Your task to perform on an android device: Is it going to rain tomorrow? Image 0: 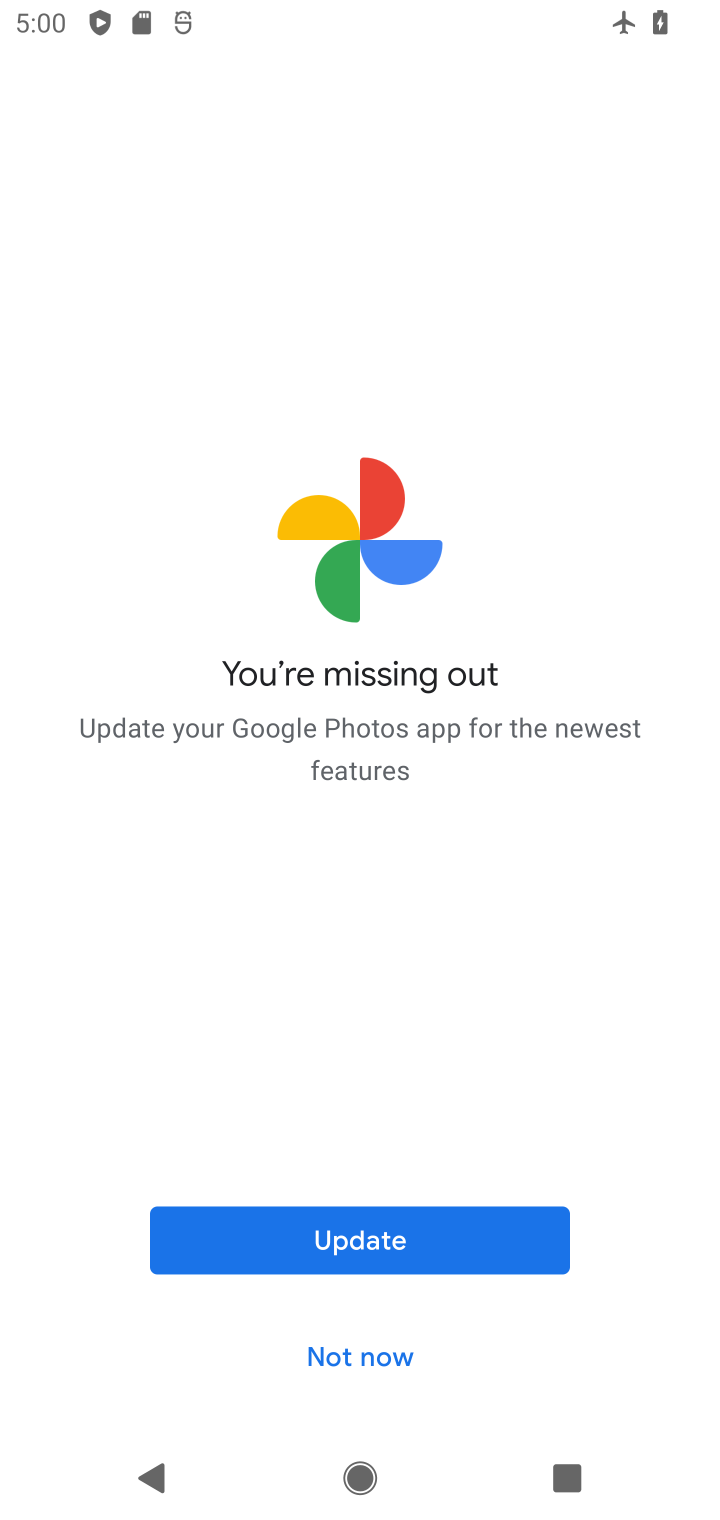
Step 0: press home button
Your task to perform on an android device: Is it going to rain tomorrow? Image 1: 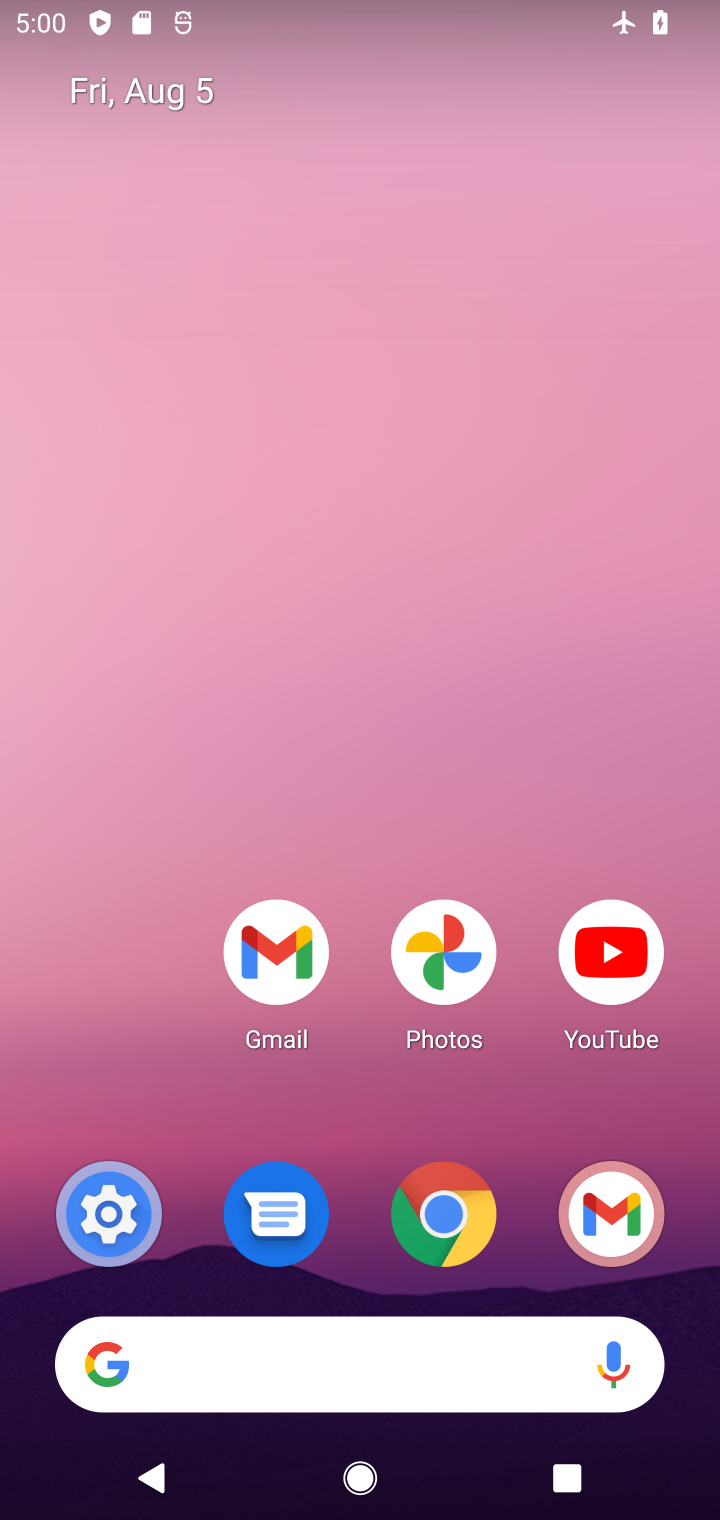
Step 1: click (450, 1358)
Your task to perform on an android device: Is it going to rain tomorrow? Image 2: 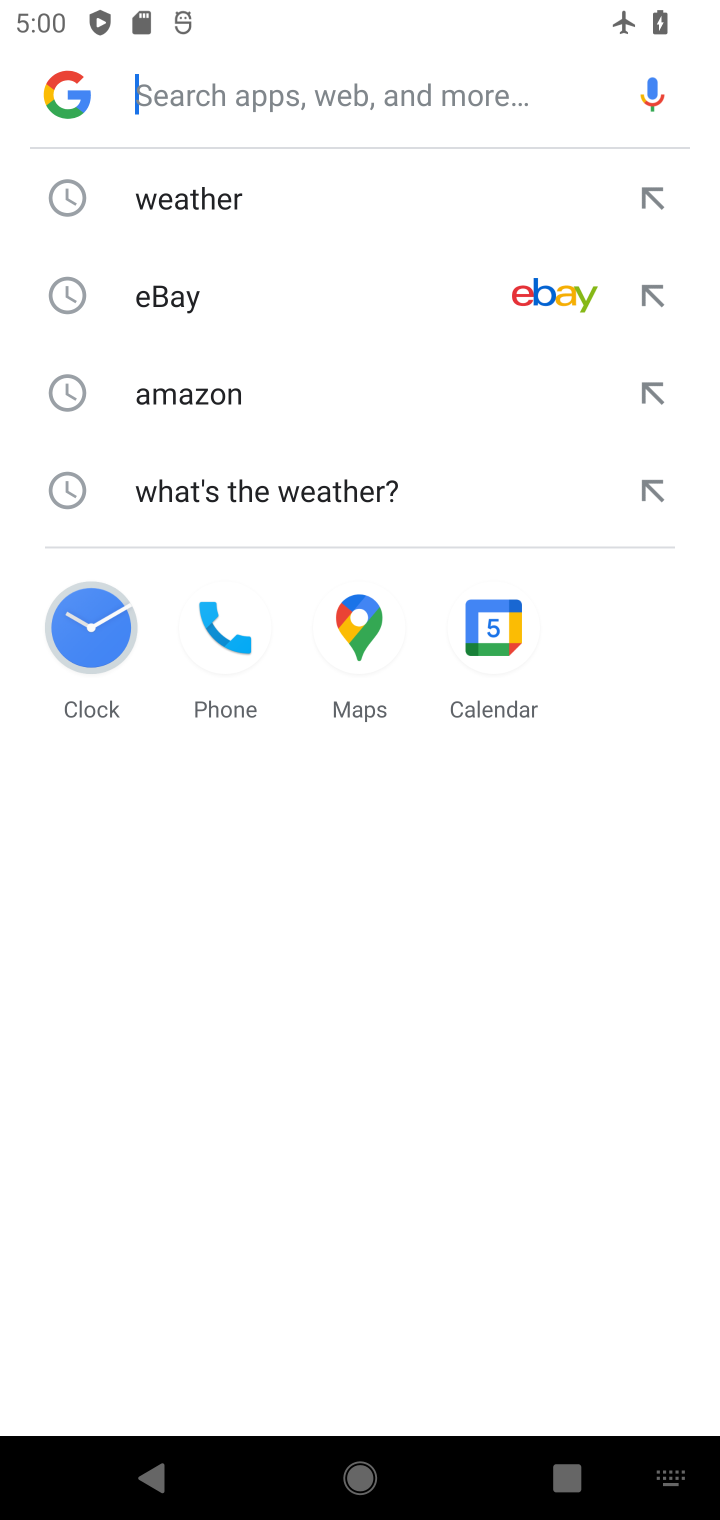
Step 2: click (185, 196)
Your task to perform on an android device: Is it going to rain tomorrow? Image 3: 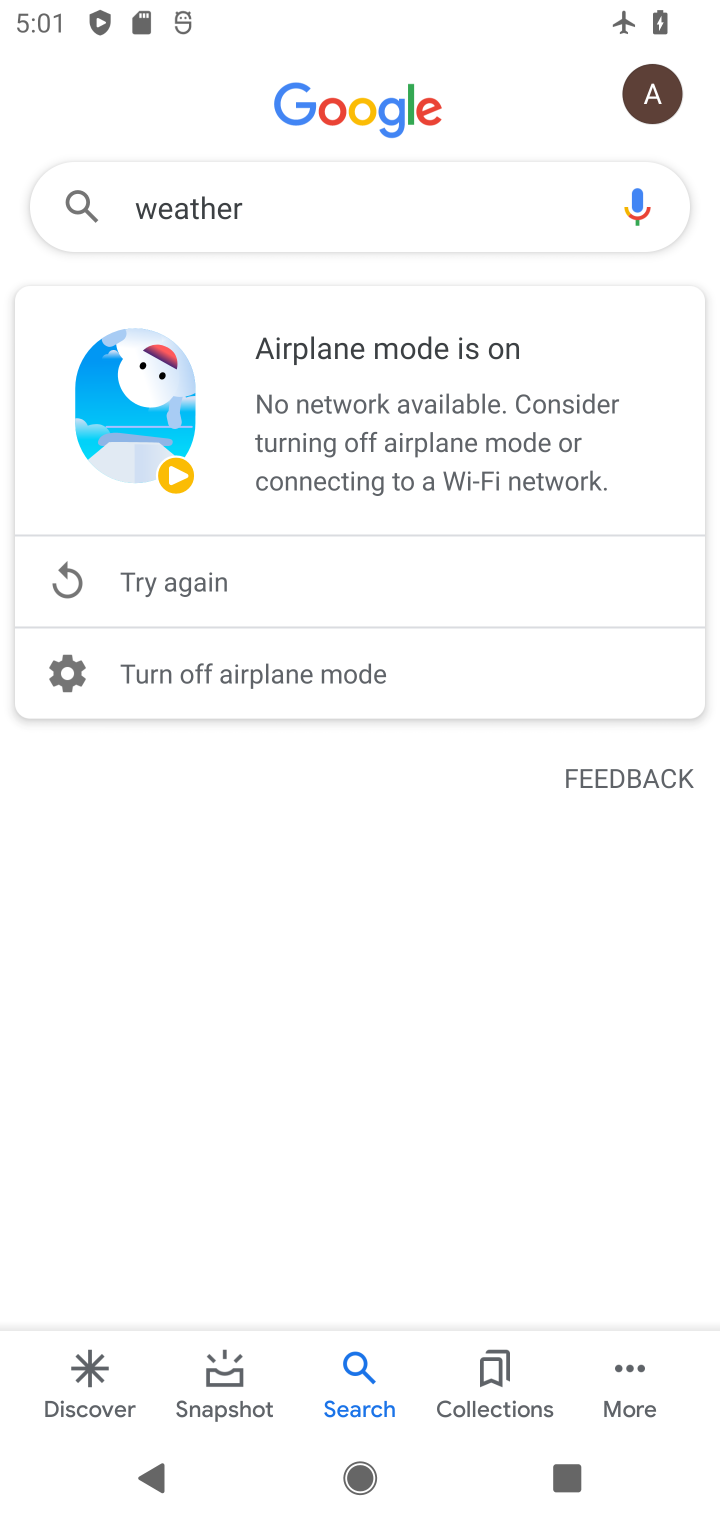
Step 3: task complete